Your task to perform on an android device: What is the recent news? Image 0: 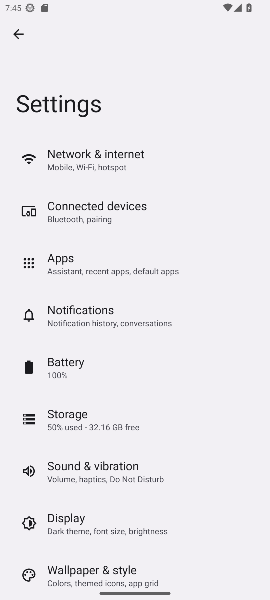
Step 0: press home button
Your task to perform on an android device: What is the recent news? Image 1: 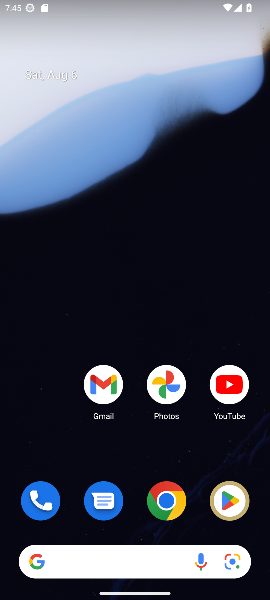
Step 1: click (61, 558)
Your task to perform on an android device: What is the recent news? Image 2: 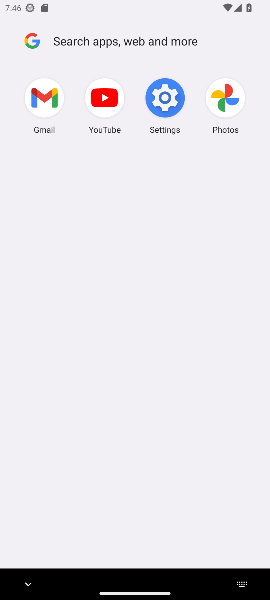
Step 2: type "What is the recent news?"
Your task to perform on an android device: What is the recent news? Image 3: 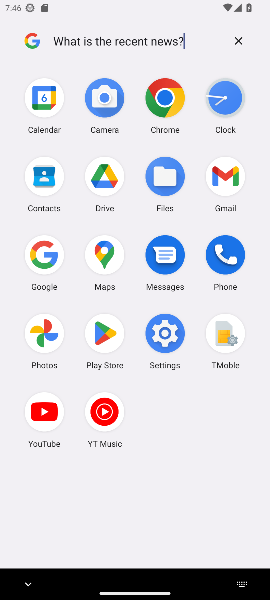
Step 3: type ""
Your task to perform on an android device: What is the recent news? Image 4: 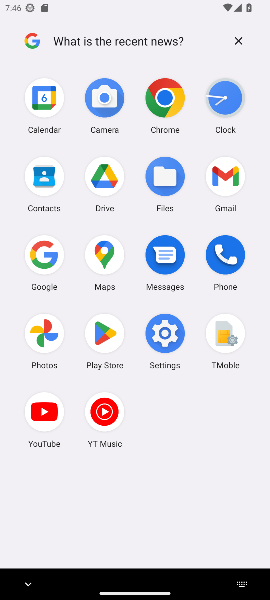
Step 4: task complete